Your task to perform on an android device: turn pop-ups on in chrome Image 0: 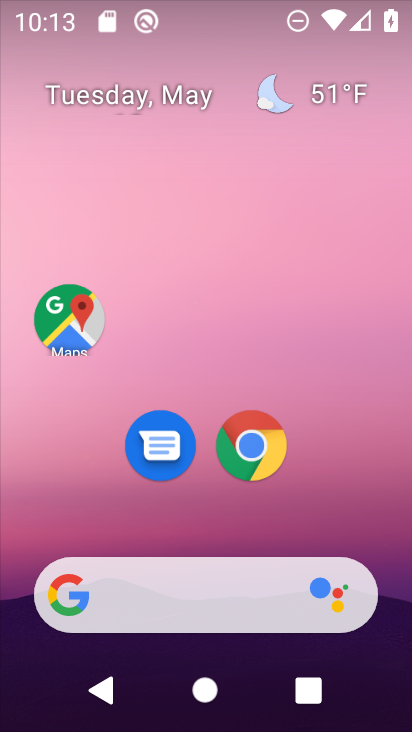
Step 0: click (239, 470)
Your task to perform on an android device: turn pop-ups on in chrome Image 1: 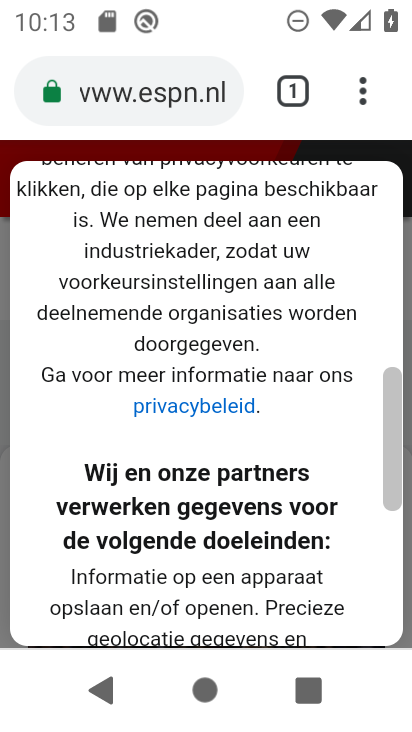
Step 1: click (361, 88)
Your task to perform on an android device: turn pop-ups on in chrome Image 2: 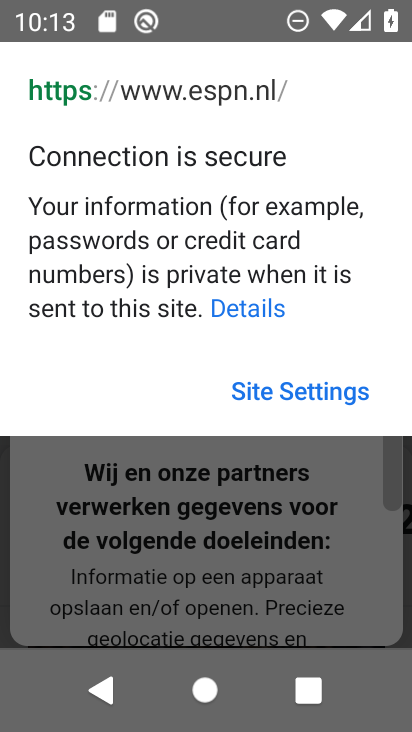
Step 2: click (361, 88)
Your task to perform on an android device: turn pop-ups on in chrome Image 3: 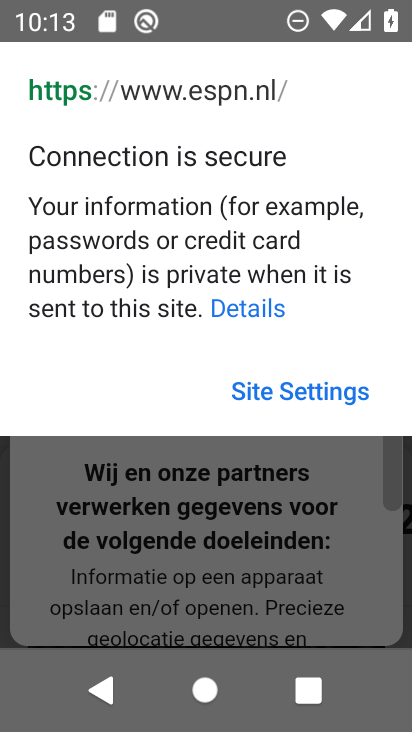
Step 3: press back button
Your task to perform on an android device: turn pop-ups on in chrome Image 4: 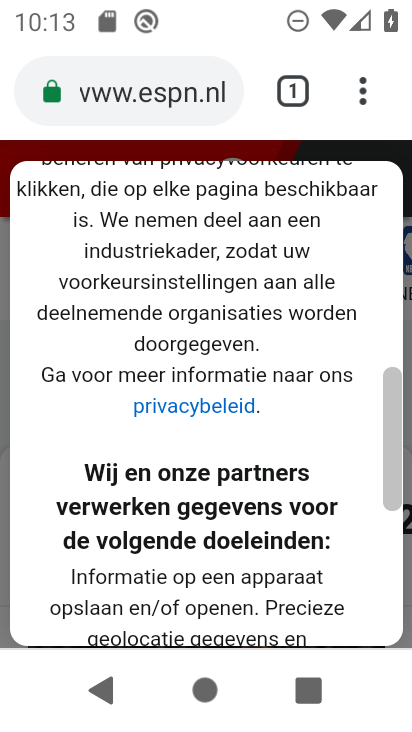
Step 4: drag from (360, 91) to (122, 478)
Your task to perform on an android device: turn pop-ups on in chrome Image 5: 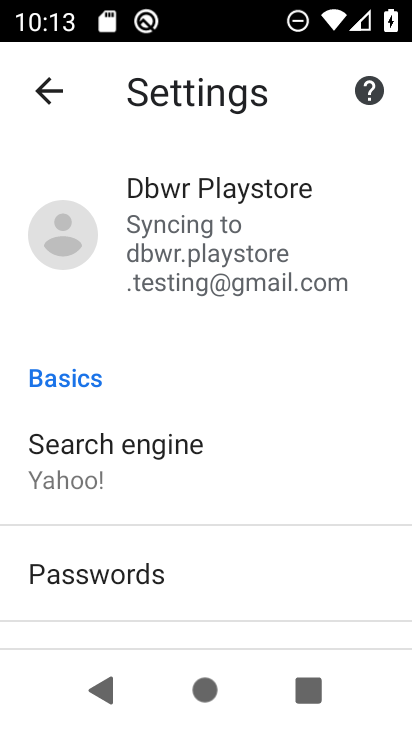
Step 5: drag from (137, 530) to (96, 36)
Your task to perform on an android device: turn pop-ups on in chrome Image 6: 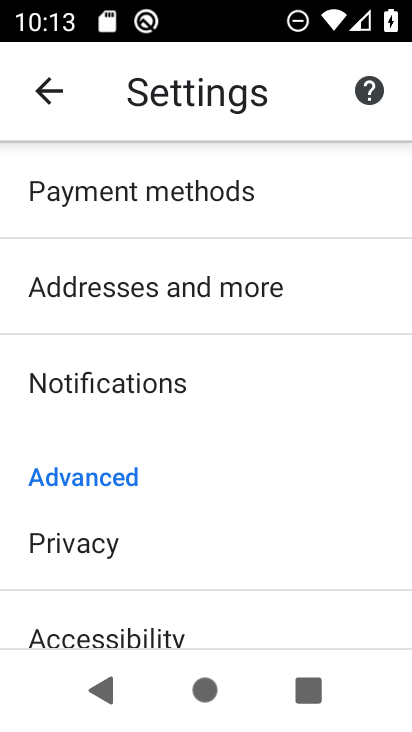
Step 6: drag from (149, 550) to (138, 162)
Your task to perform on an android device: turn pop-ups on in chrome Image 7: 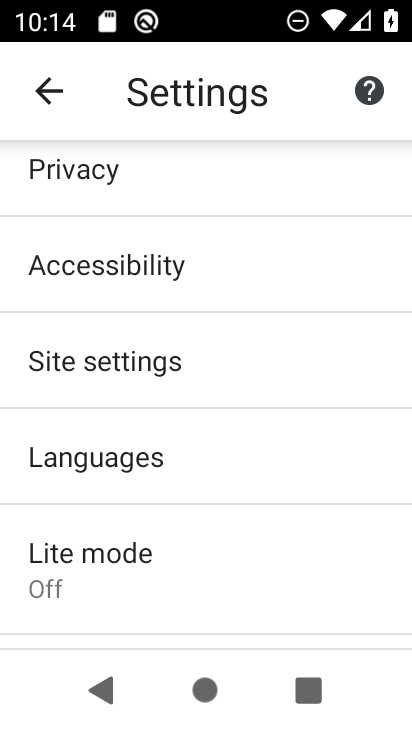
Step 7: click (110, 368)
Your task to perform on an android device: turn pop-ups on in chrome Image 8: 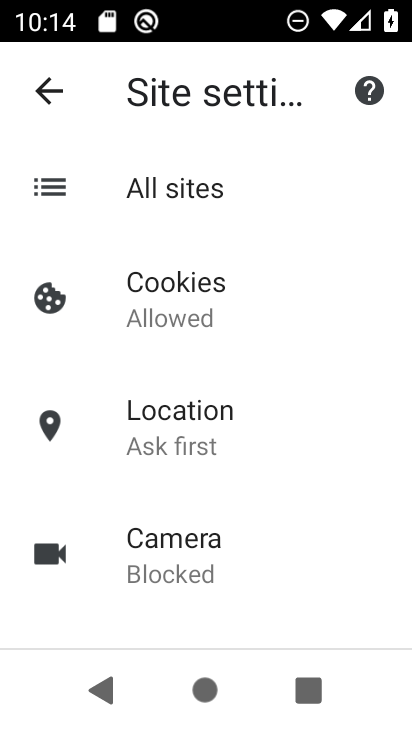
Step 8: drag from (145, 425) to (119, 95)
Your task to perform on an android device: turn pop-ups on in chrome Image 9: 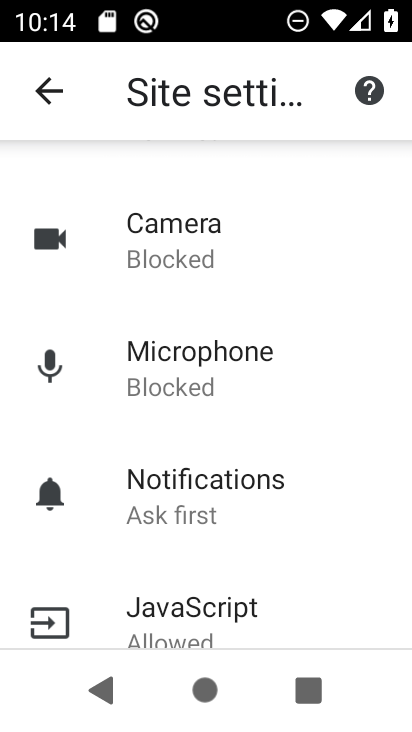
Step 9: drag from (188, 568) to (175, 231)
Your task to perform on an android device: turn pop-ups on in chrome Image 10: 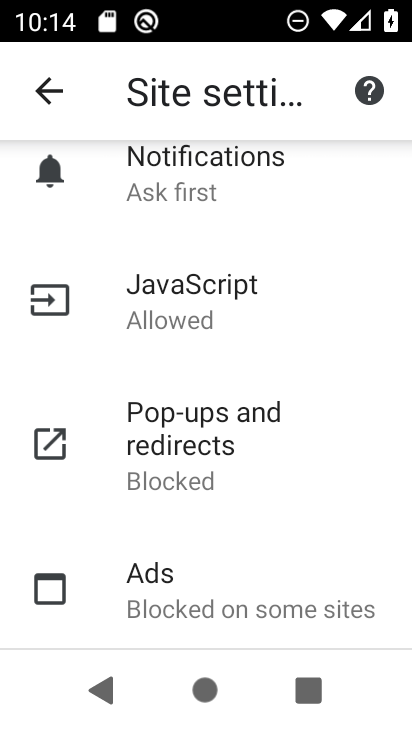
Step 10: click (214, 452)
Your task to perform on an android device: turn pop-ups on in chrome Image 11: 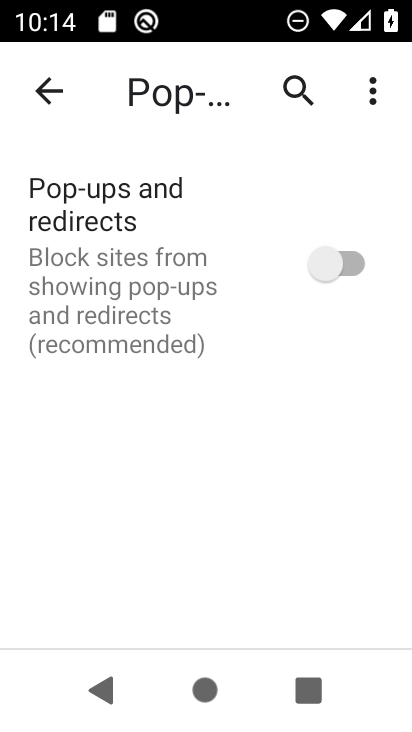
Step 11: click (343, 261)
Your task to perform on an android device: turn pop-ups on in chrome Image 12: 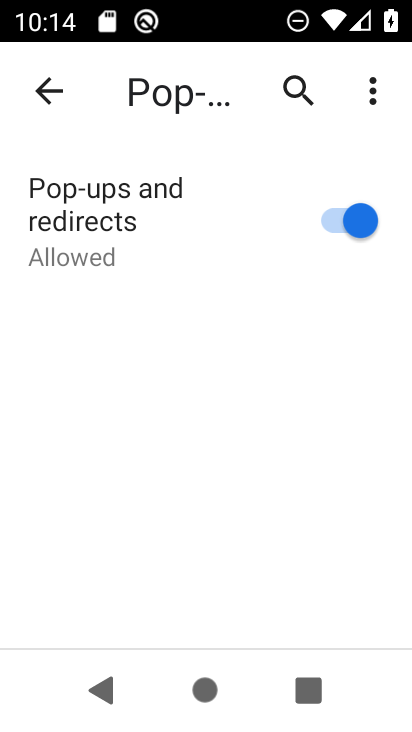
Step 12: task complete